Your task to perform on an android device: Open calendar and show me the second week of next month Image 0: 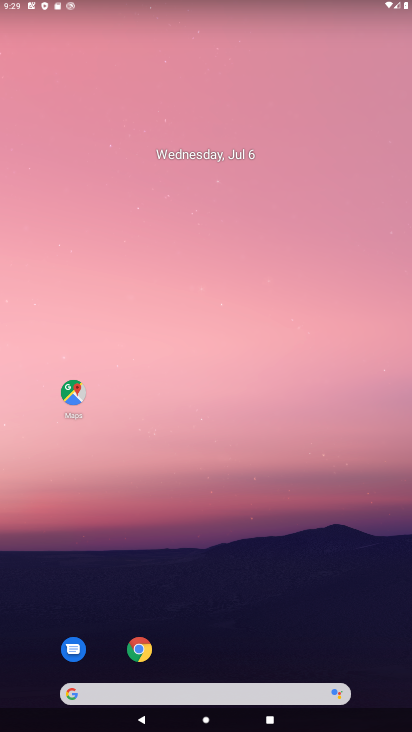
Step 0: drag from (232, 606) to (202, 106)
Your task to perform on an android device: Open calendar and show me the second week of next month Image 1: 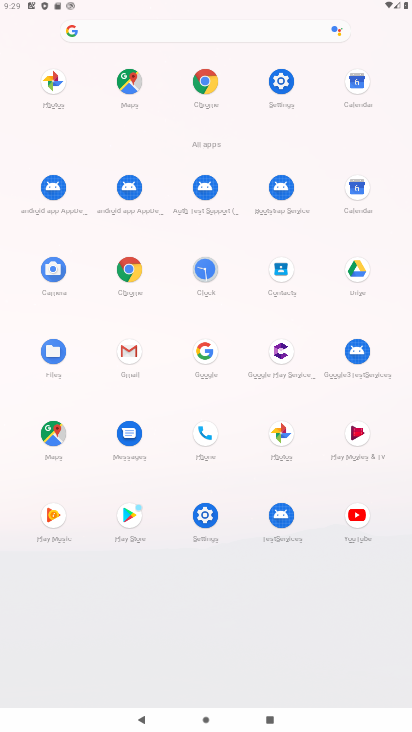
Step 1: click (357, 84)
Your task to perform on an android device: Open calendar and show me the second week of next month Image 2: 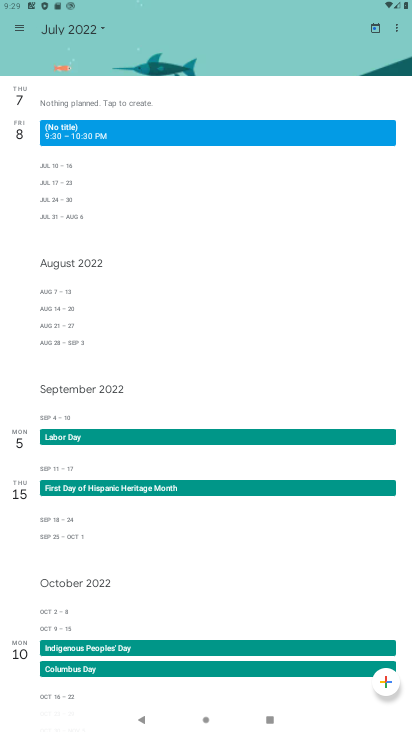
Step 2: click (102, 25)
Your task to perform on an android device: Open calendar and show me the second week of next month Image 3: 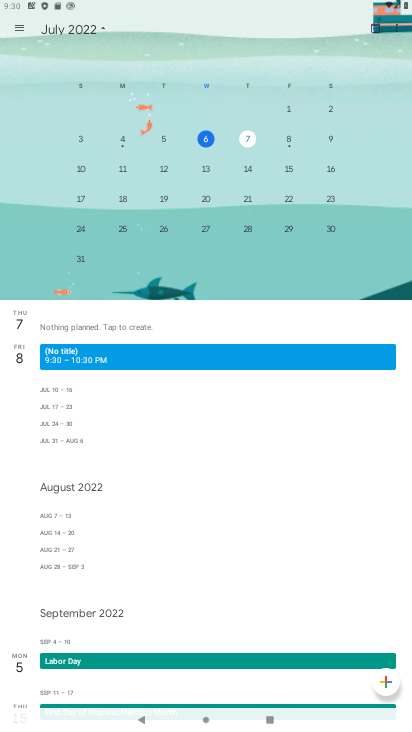
Step 3: click (378, 32)
Your task to perform on an android device: Open calendar and show me the second week of next month Image 4: 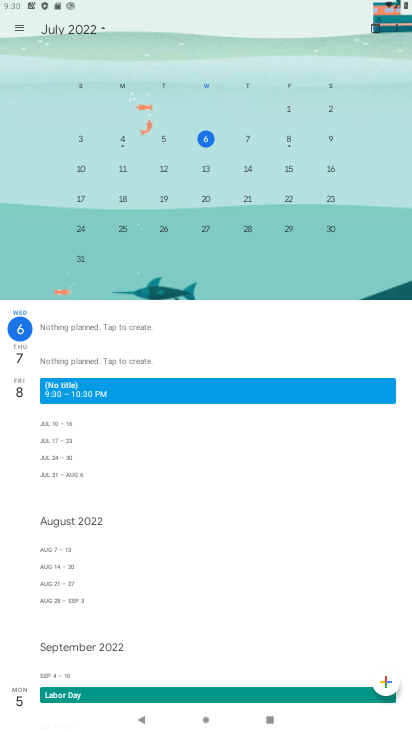
Step 4: drag from (357, 197) to (20, 169)
Your task to perform on an android device: Open calendar and show me the second week of next month Image 5: 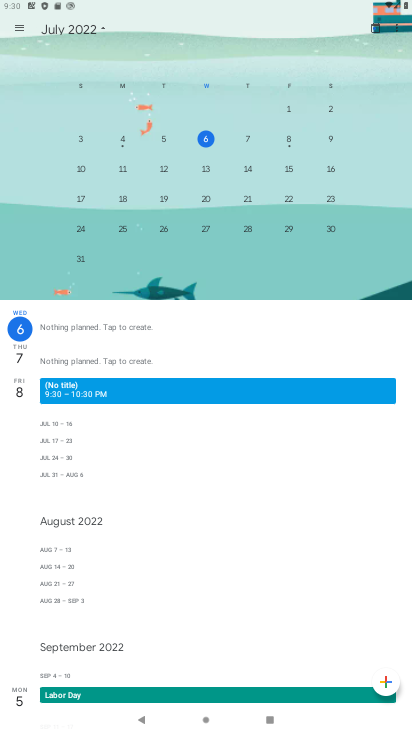
Step 5: drag from (370, 136) to (6, 221)
Your task to perform on an android device: Open calendar and show me the second week of next month Image 6: 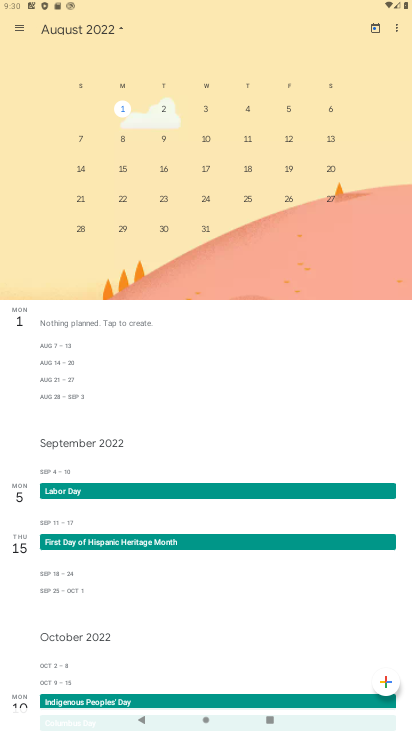
Step 6: click (126, 143)
Your task to perform on an android device: Open calendar and show me the second week of next month Image 7: 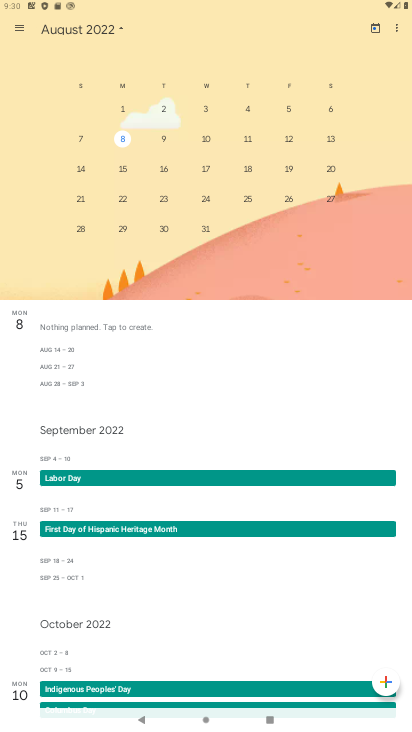
Step 7: click (13, 26)
Your task to perform on an android device: Open calendar and show me the second week of next month Image 8: 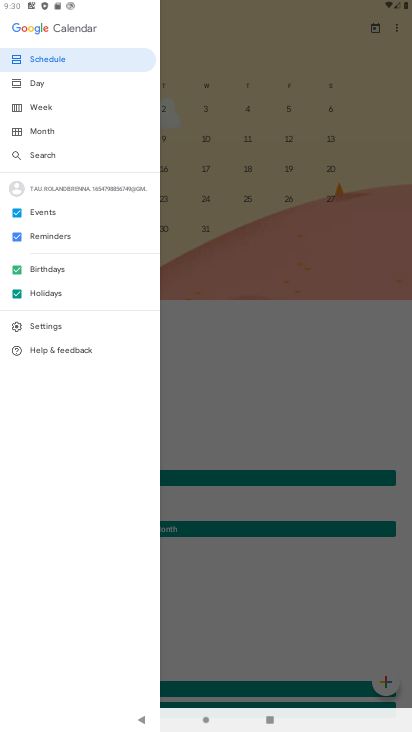
Step 8: click (35, 101)
Your task to perform on an android device: Open calendar and show me the second week of next month Image 9: 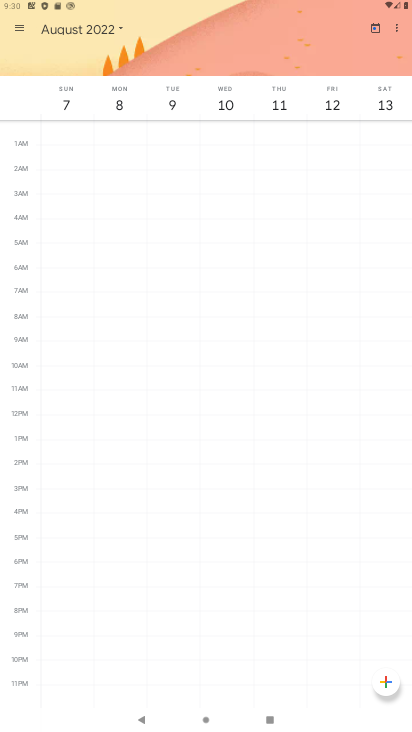
Step 9: task complete